Your task to perform on an android device: Open my contact list Image 0: 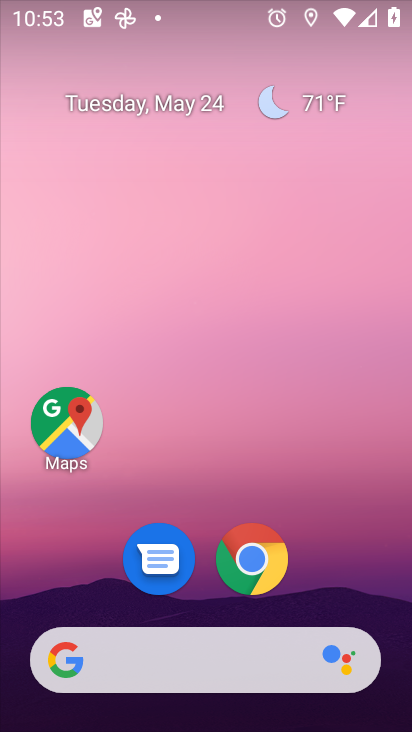
Step 0: drag from (397, 656) to (285, 76)
Your task to perform on an android device: Open my contact list Image 1: 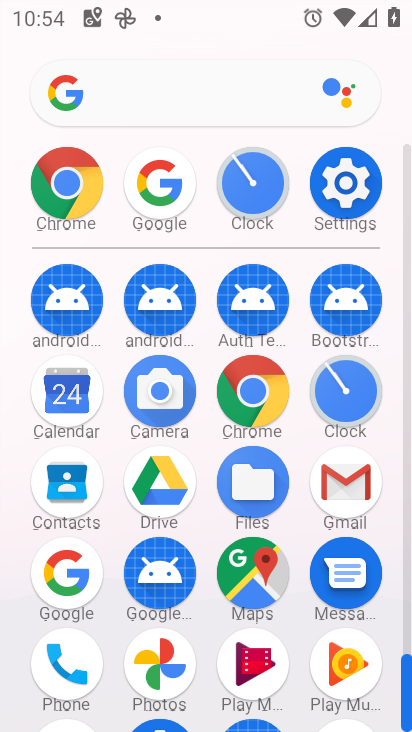
Step 1: click (80, 476)
Your task to perform on an android device: Open my contact list Image 2: 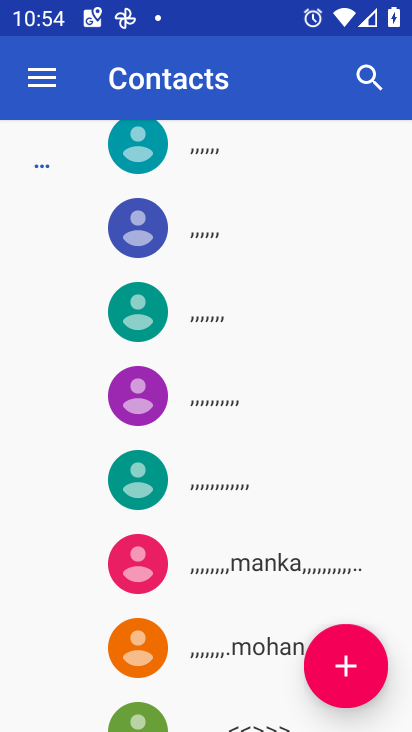
Step 2: task complete